Your task to perform on an android device: Open maps Image 0: 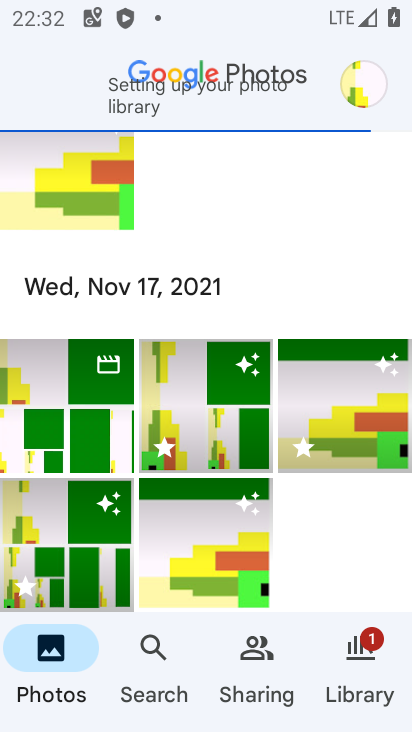
Step 0: press home button
Your task to perform on an android device: Open maps Image 1: 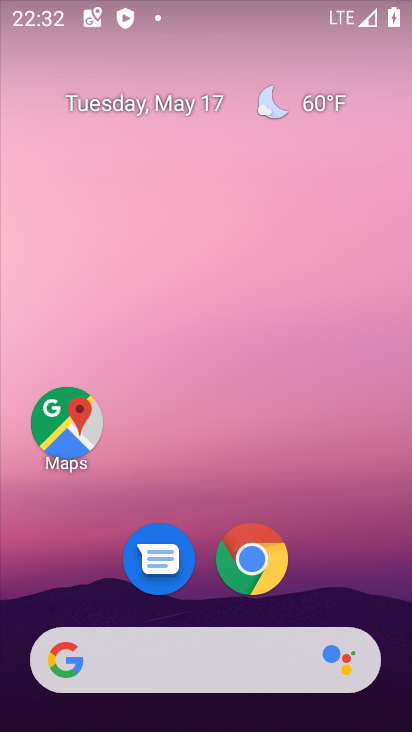
Step 1: click (75, 420)
Your task to perform on an android device: Open maps Image 2: 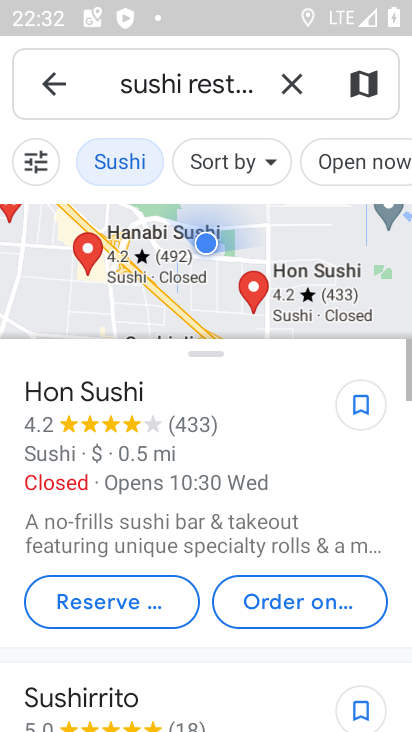
Step 2: task complete